Your task to perform on an android device: Open network settings Image 0: 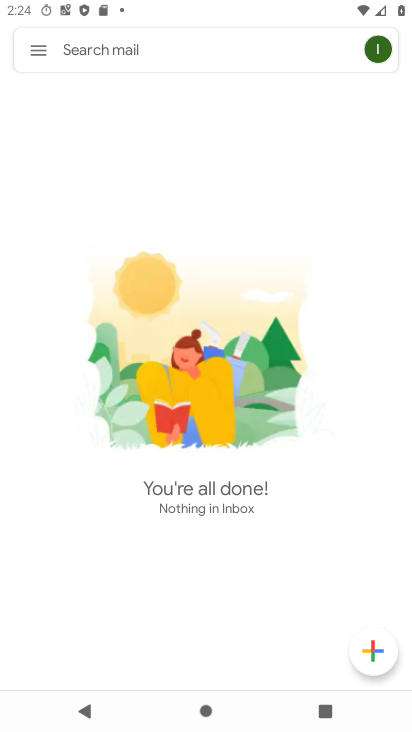
Step 0: press home button
Your task to perform on an android device: Open network settings Image 1: 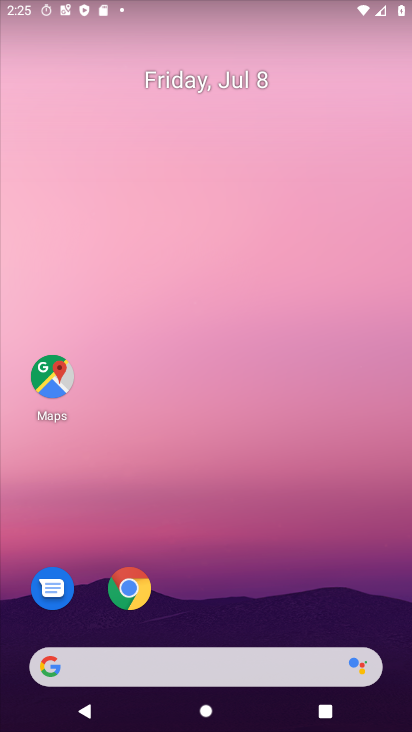
Step 1: drag from (211, 631) to (212, 167)
Your task to perform on an android device: Open network settings Image 2: 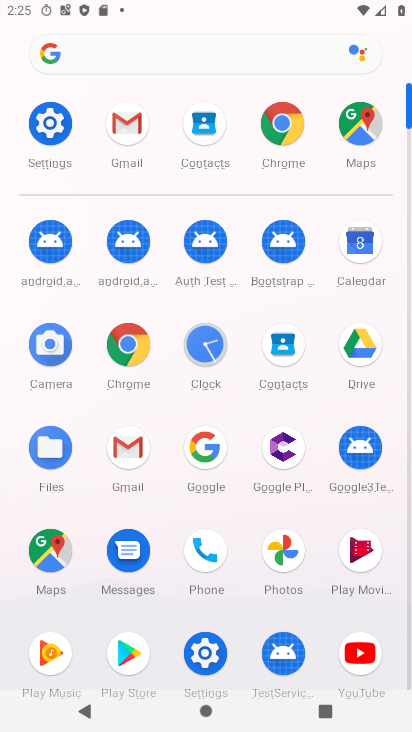
Step 2: click (52, 126)
Your task to perform on an android device: Open network settings Image 3: 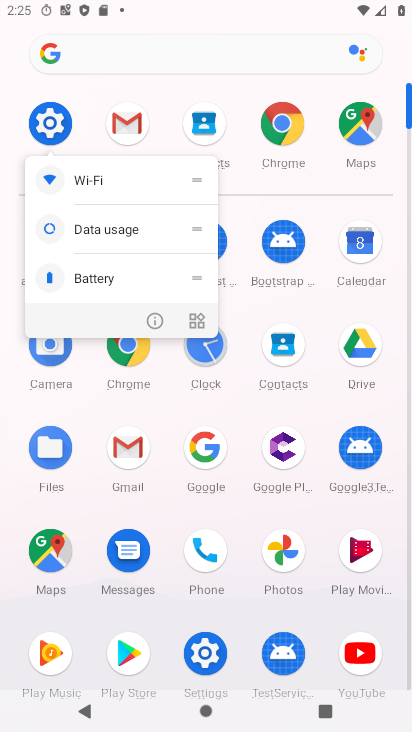
Step 3: click (56, 119)
Your task to perform on an android device: Open network settings Image 4: 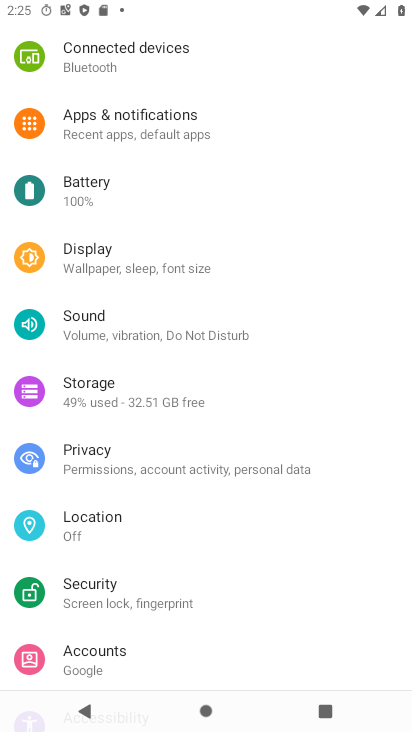
Step 4: drag from (299, 112) to (313, 620)
Your task to perform on an android device: Open network settings Image 5: 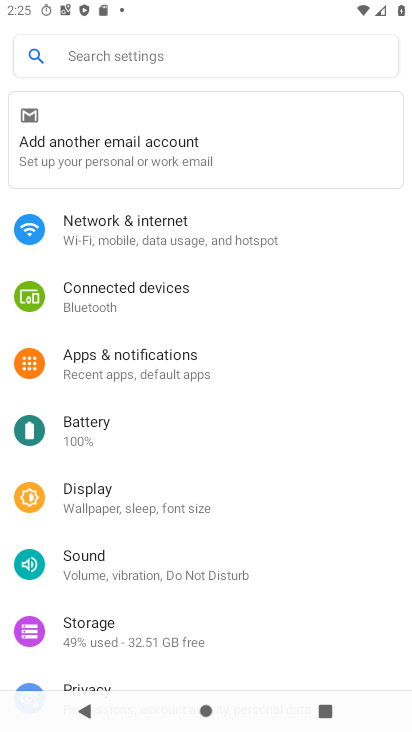
Step 5: click (134, 225)
Your task to perform on an android device: Open network settings Image 6: 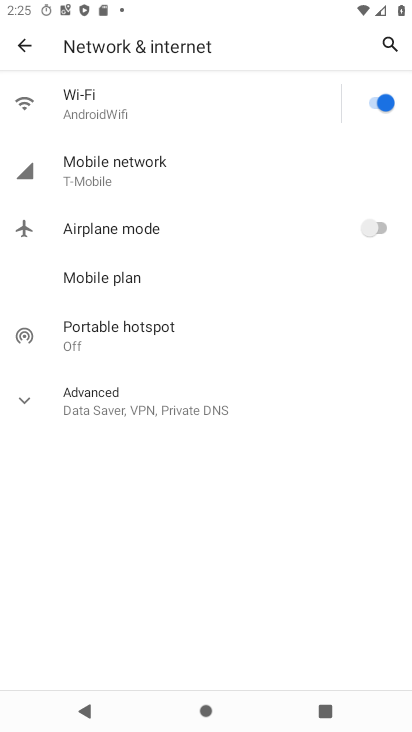
Step 6: task complete